Your task to perform on an android device: open app "AliExpress" (install if not already installed) Image 0: 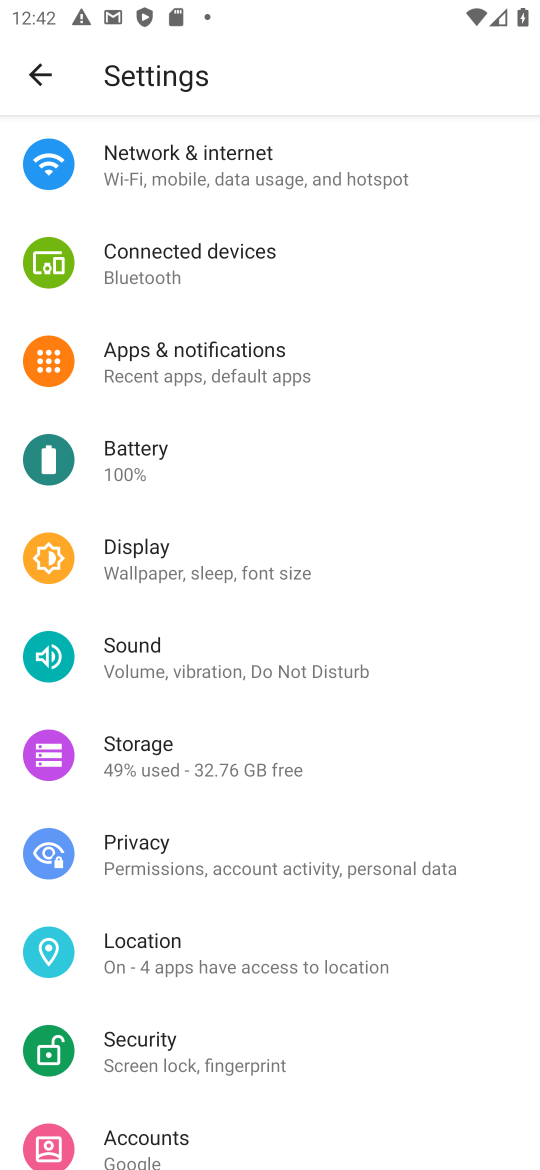
Step 0: press home button
Your task to perform on an android device: open app "AliExpress" (install if not already installed) Image 1: 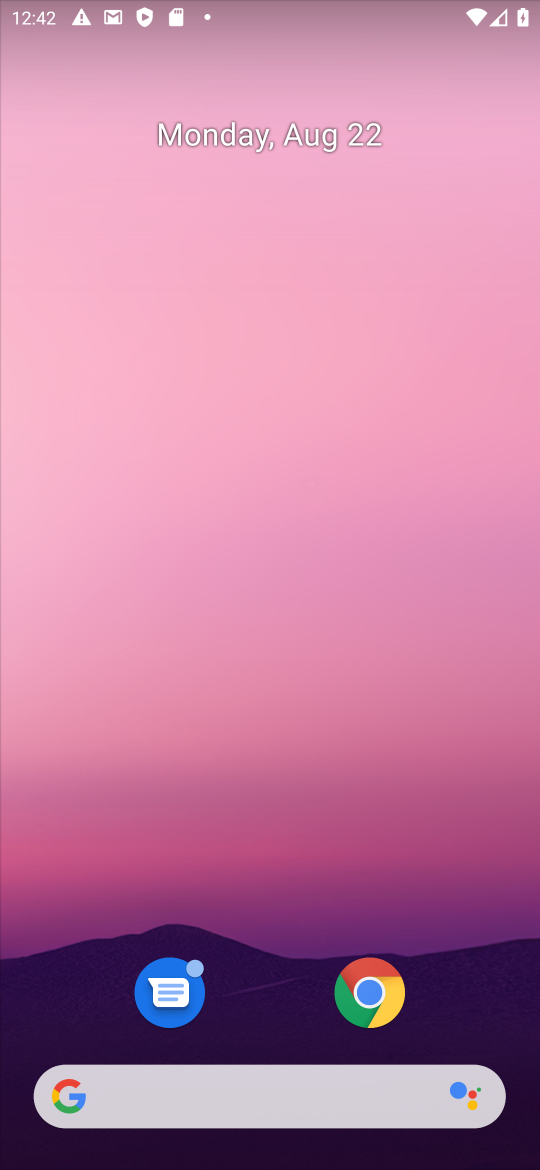
Step 1: drag from (263, 766) to (252, 449)
Your task to perform on an android device: open app "AliExpress" (install if not already installed) Image 2: 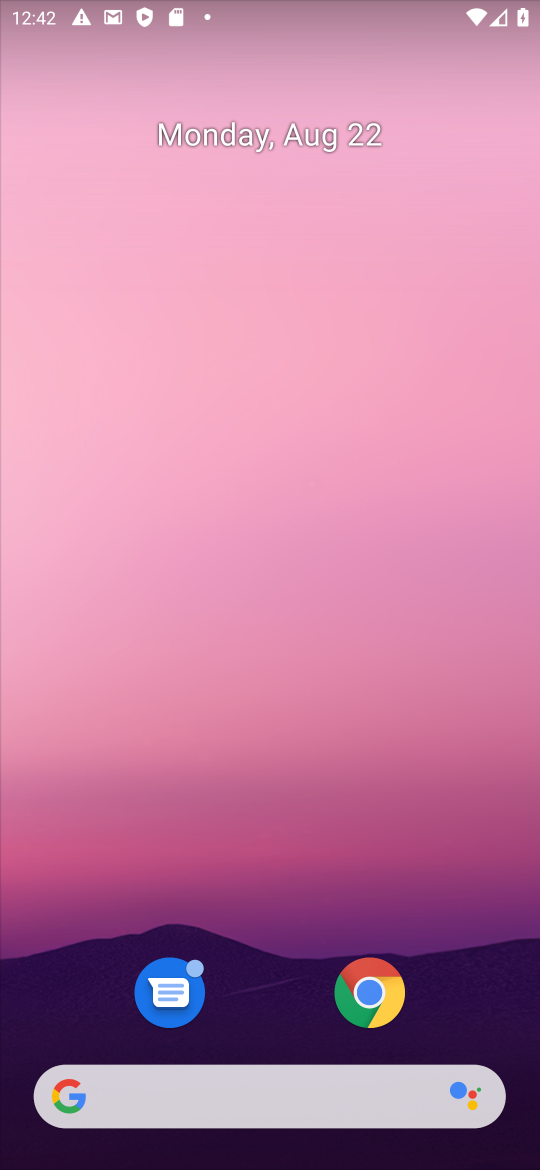
Step 2: drag from (234, 1058) to (368, 305)
Your task to perform on an android device: open app "AliExpress" (install if not already installed) Image 3: 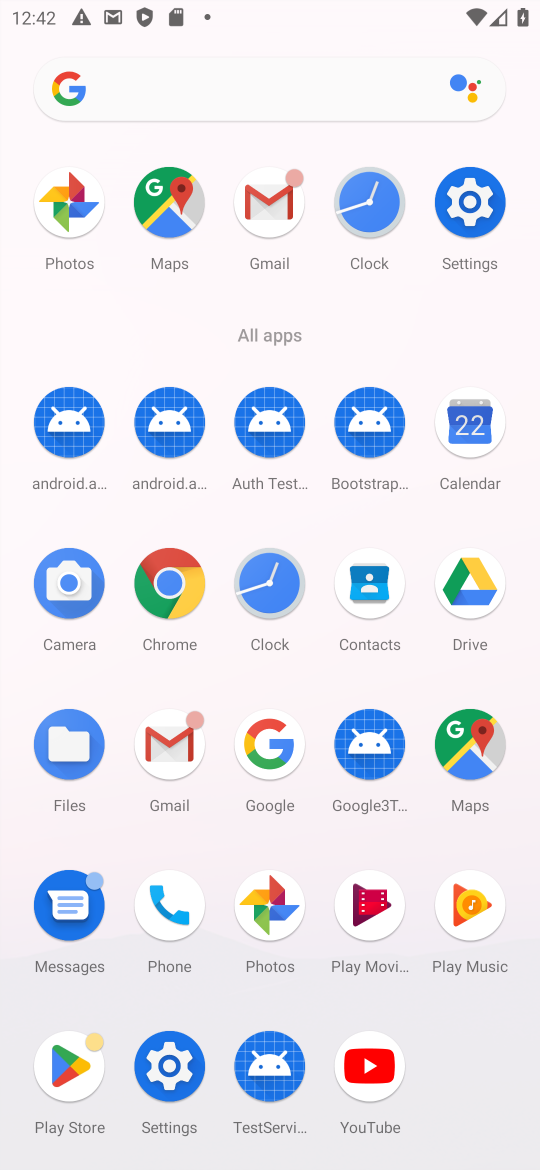
Step 3: click (55, 1058)
Your task to perform on an android device: open app "AliExpress" (install if not already installed) Image 4: 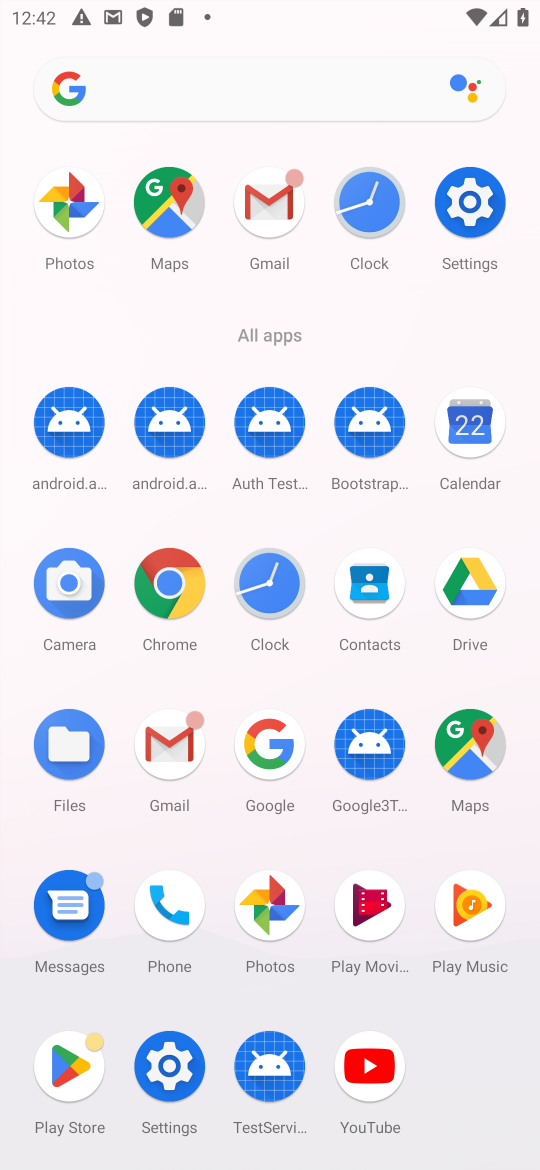
Step 4: click (74, 1068)
Your task to perform on an android device: open app "AliExpress" (install if not already installed) Image 5: 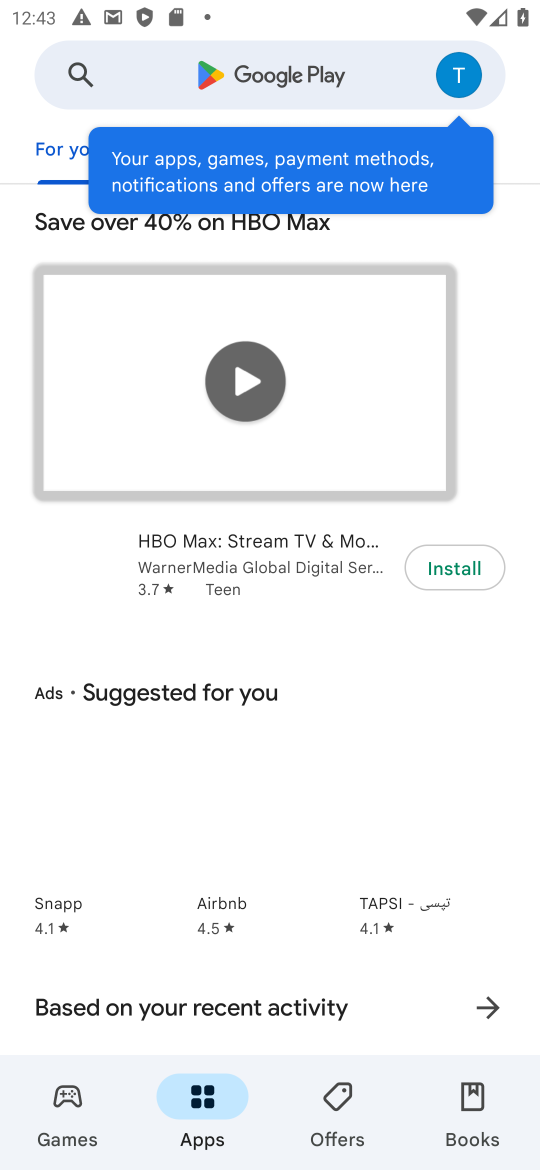
Step 5: click (293, 74)
Your task to perform on an android device: open app "AliExpress" (install if not already installed) Image 6: 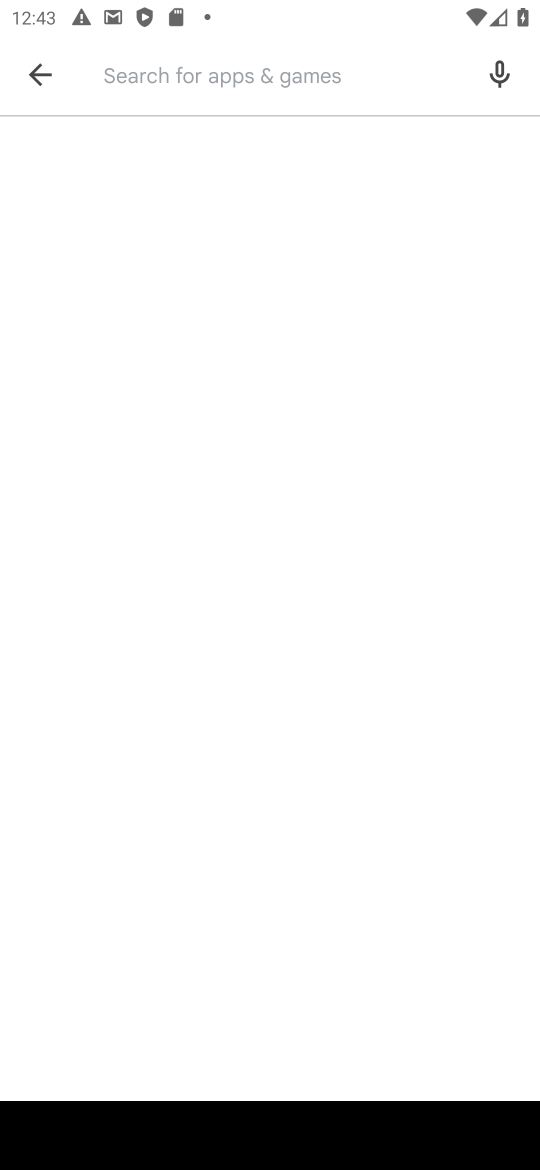
Step 6: type "AliExpress"
Your task to perform on an android device: open app "AliExpress" (install if not already installed) Image 7: 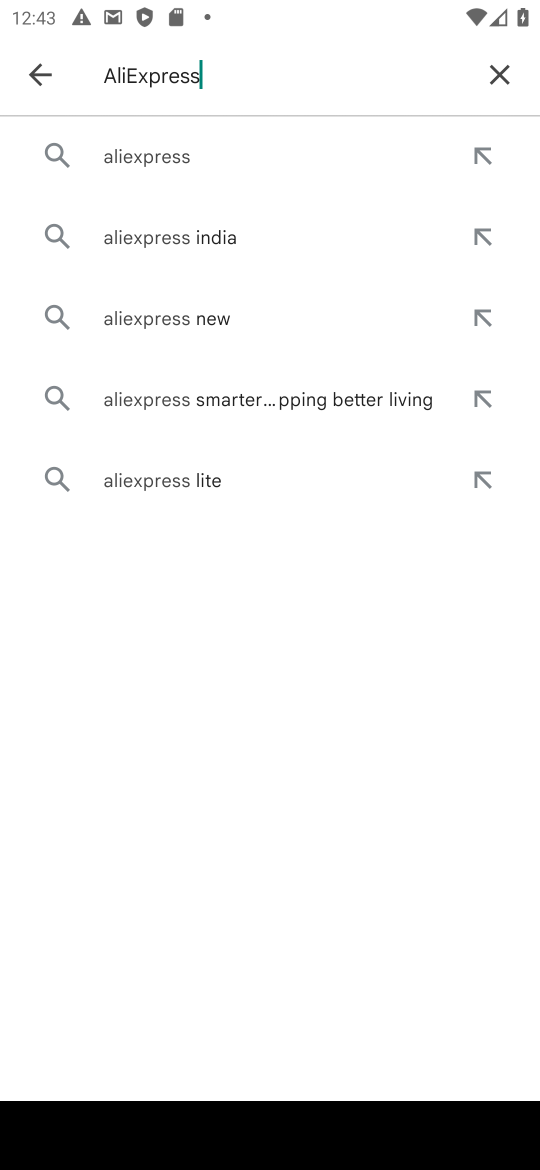
Step 7: click (130, 165)
Your task to perform on an android device: open app "AliExpress" (install if not already installed) Image 8: 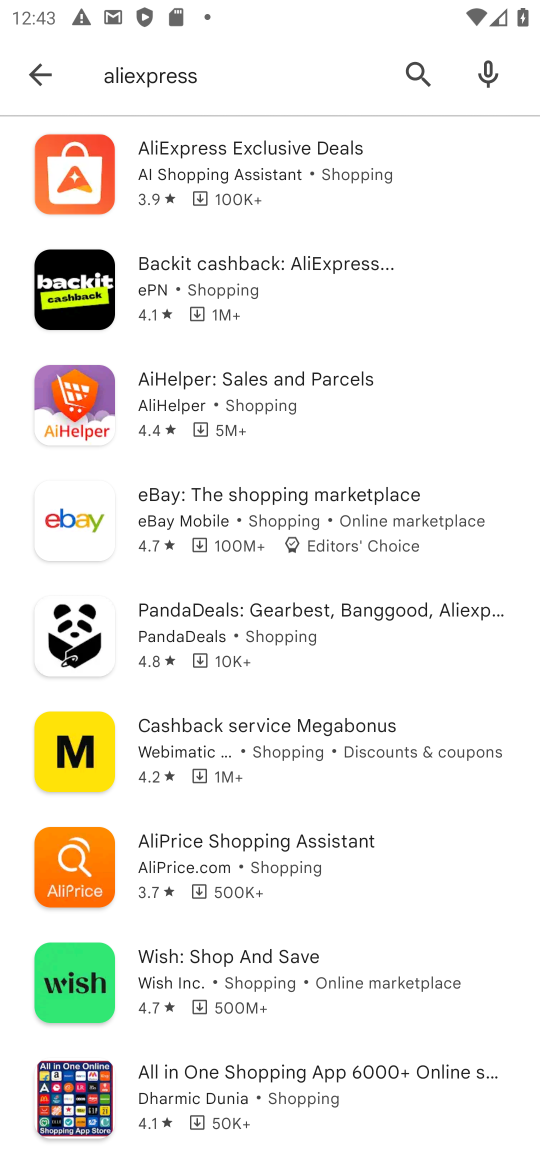
Step 8: click (229, 165)
Your task to perform on an android device: open app "AliExpress" (install if not already installed) Image 9: 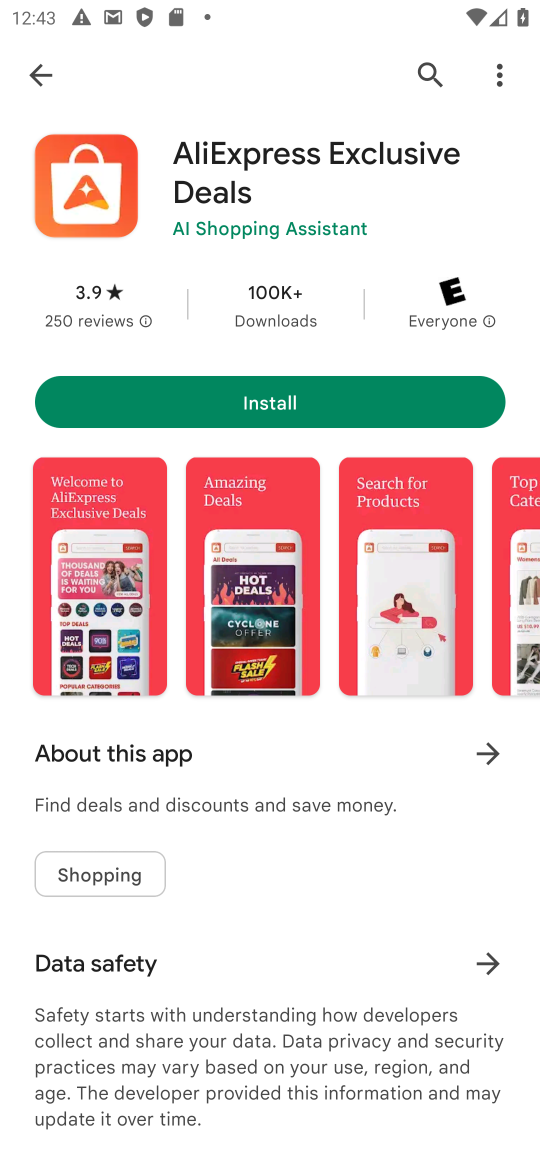
Step 9: click (289, 413)
Your task to perform on an android device: open app "AliExpress" (install if not already installed) Image 10: 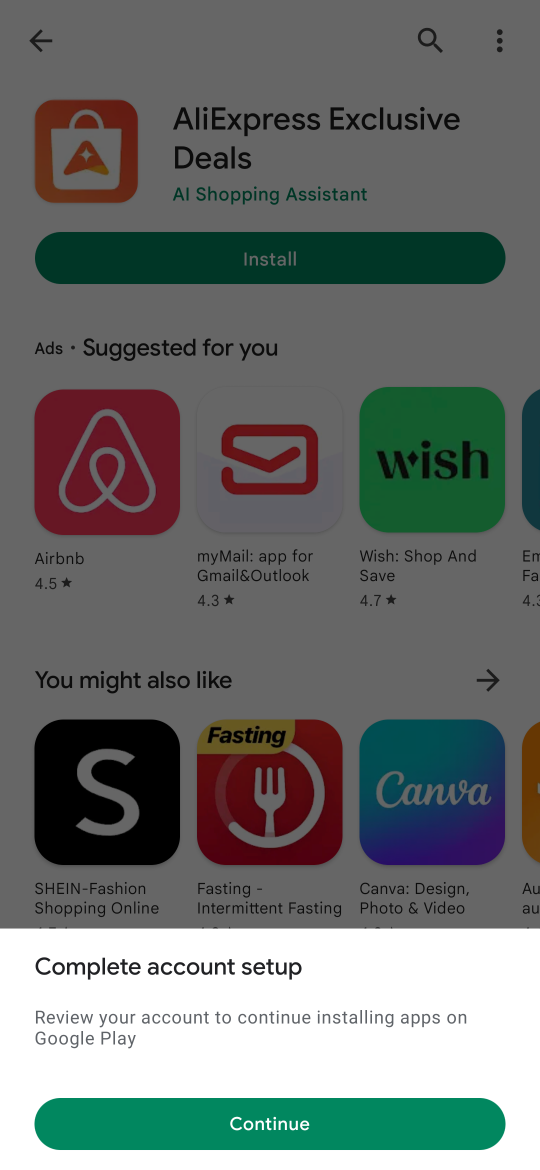
Step 10: click (261, 1130)
Your task to perform on an android device: open app "AliExpress" (install if not already installed) Image 11: 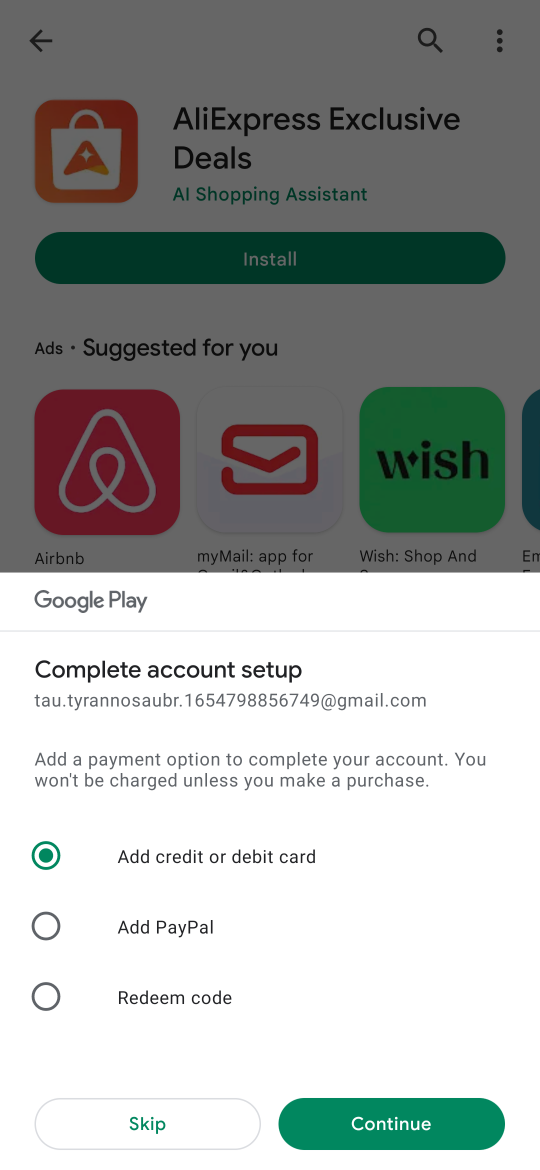
Step 11: click (149, 1127)
Your task to perform on an android device: open app "AliExpress" (install if not already installed) Image 12: 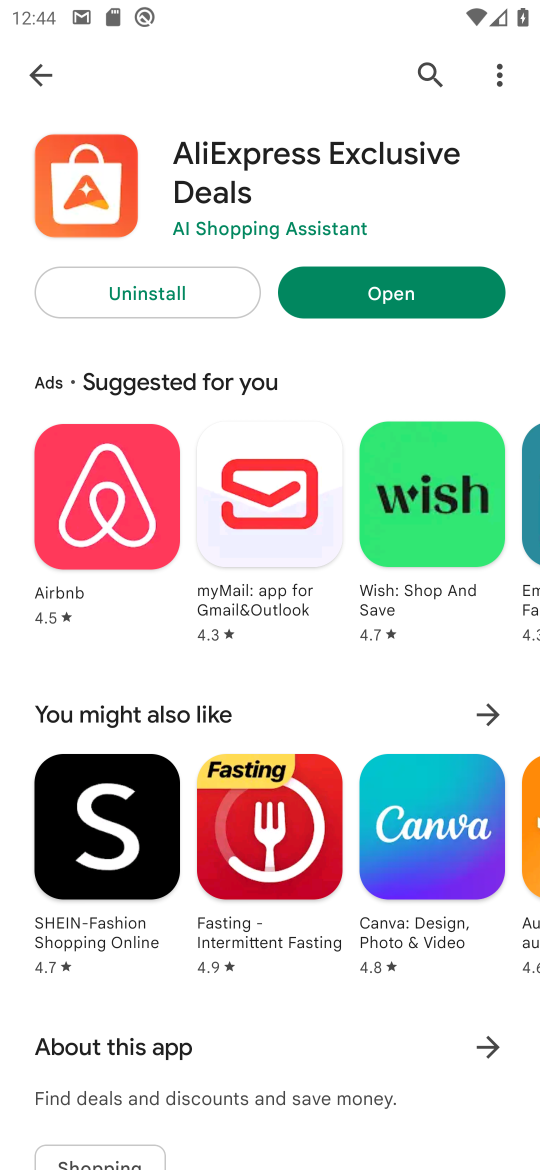
Step 12: click (434, 295)
Your task to perform on an android device: open app "AliExpress" (install if not already installed) Image 13: 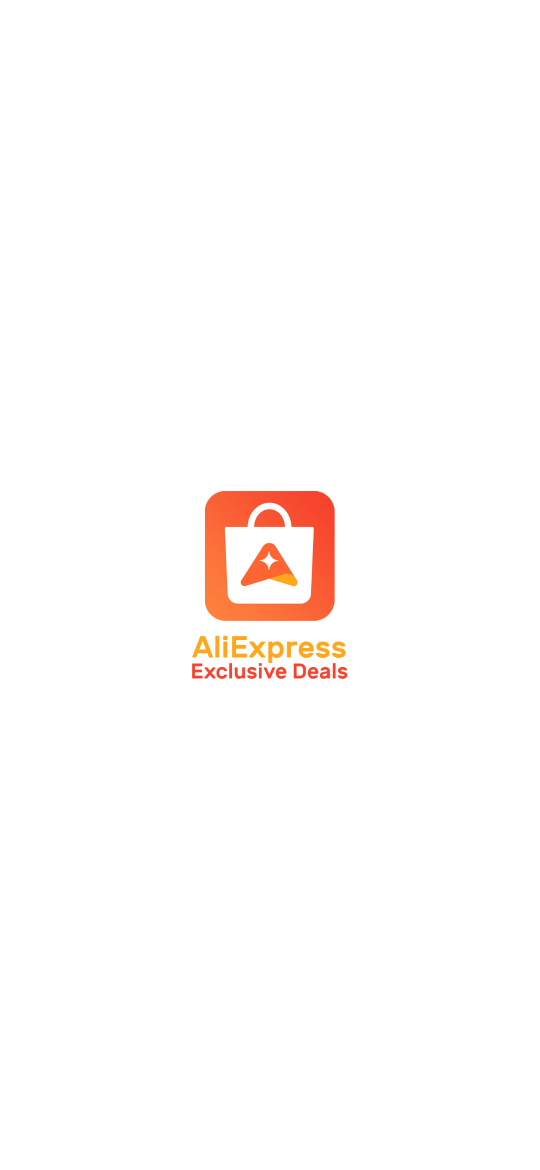
Step 13: task complete